Your task to perform on an android device: toggle improve location accuracy Image 0: 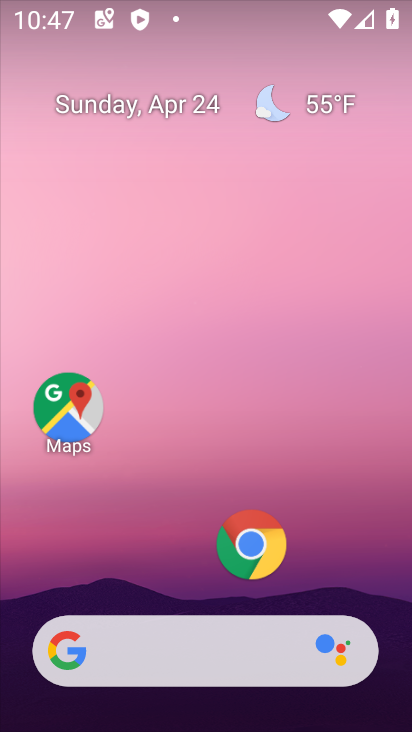
Step 0: drag from (207, 403) to (246, 92)
Your task to perform on an android device: toggle improve location accuracy Image 1: 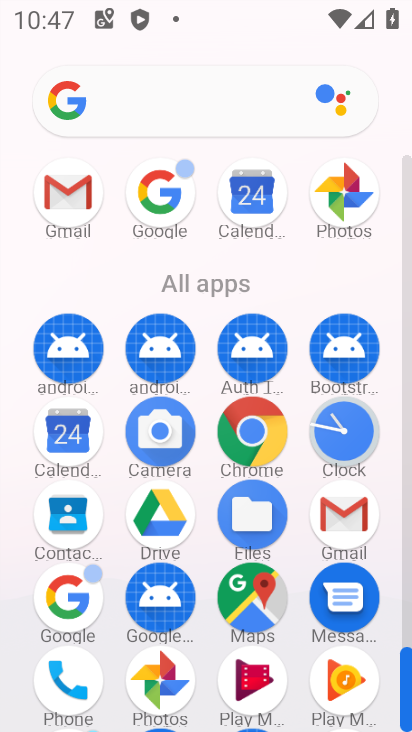
Step 1: drag from (117, 651) to (152, 303)
Your task to perform on an android device: toggle improve location accuracy Image 2: 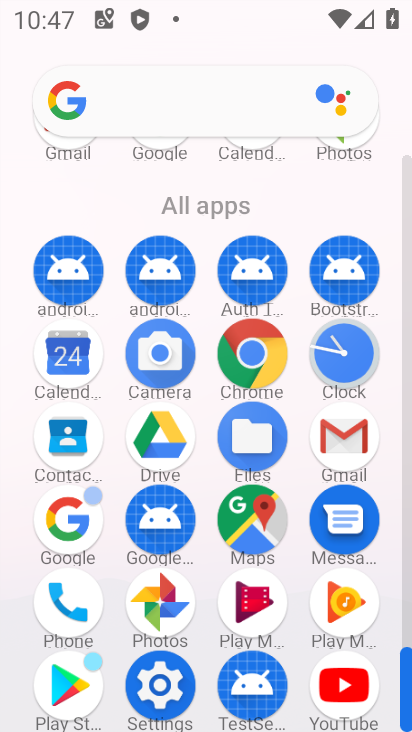
Step 2: click (157, 646)
Your task to perform on an android device: toggle improve location accuracy Image 3: 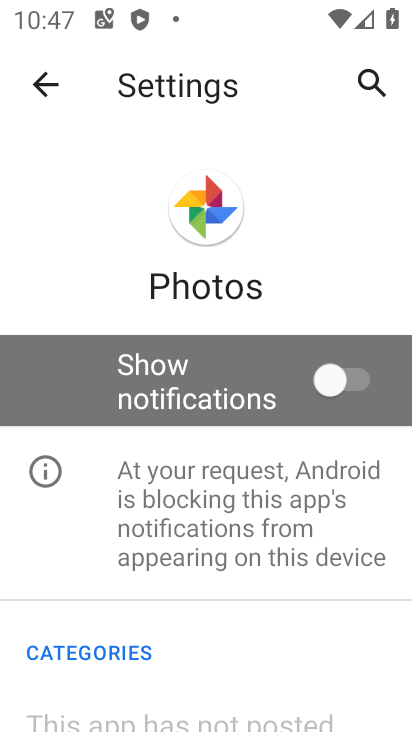
Step 3: click (50, 86)
Your task to perform on an android device: toggle improve location accuracy Image 4: 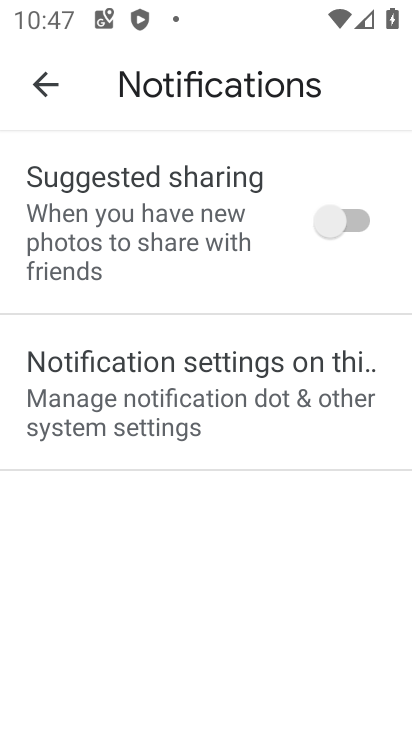
Step 4: click (36, 74)
Your task to perform on an android device: toggle improve location accuracy Image 5: 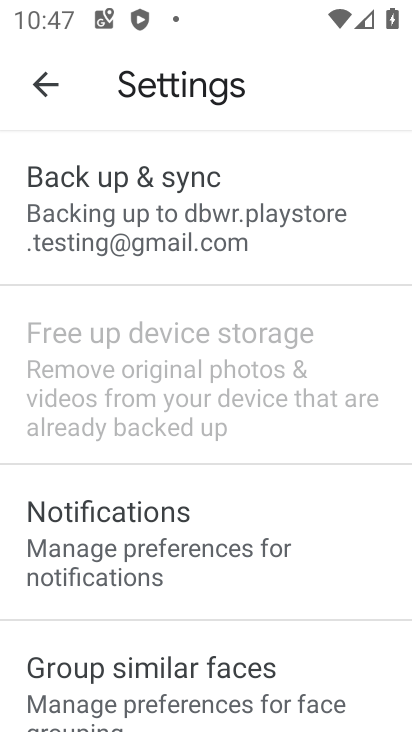
Step 5: drag from (180, 575) to (188, 159)
Your task to perform on an android device: toggle improve location accuracy Image 6: 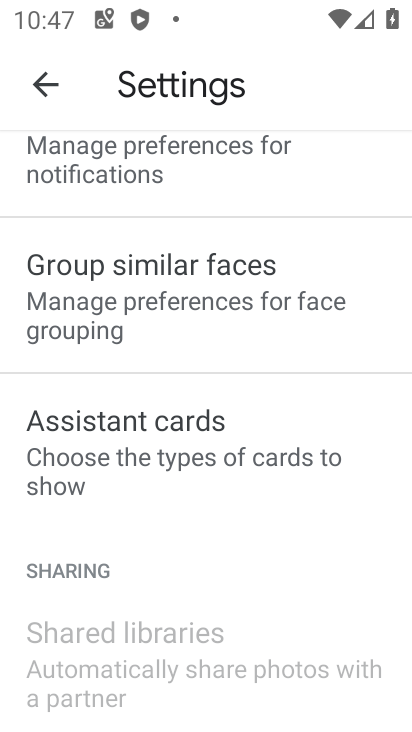
Step 6: click (44, 70)
Your task to perform on an android device: toggle improve location accuracy Image 7: 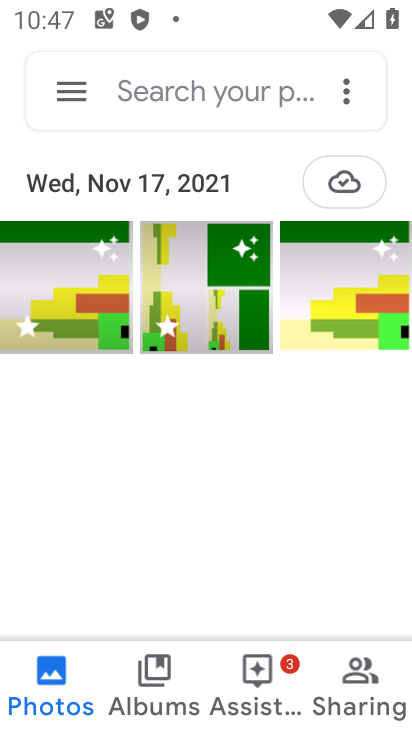
Step 7: press home button
Your task to perform on an android device: toggle improve location accuracy Image 8: 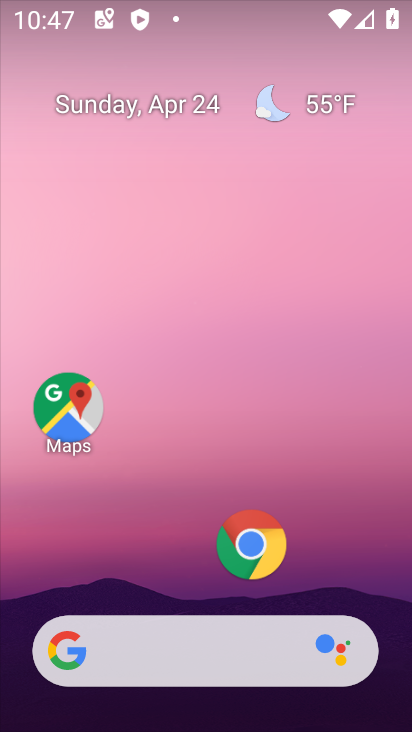
Step 8: drag from (184, 576) to (189, 68)
Your task to perform on an android device: toggle improve location accuracy Image 9: 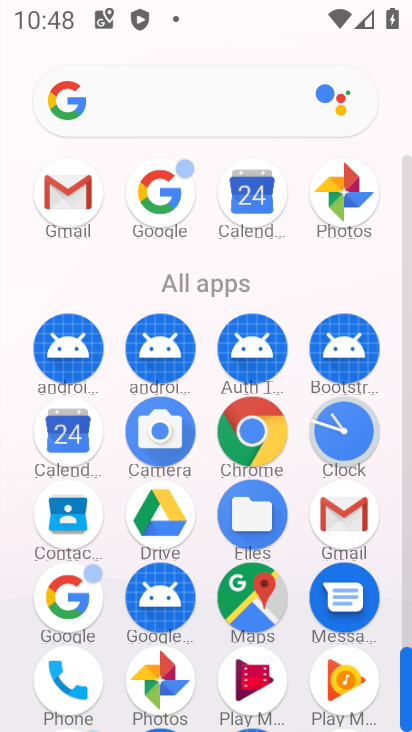
Step 9: drag from (104, 595) to (128, 218)
Your task to perform on an android device: toggle improve location accuracy Image 10: 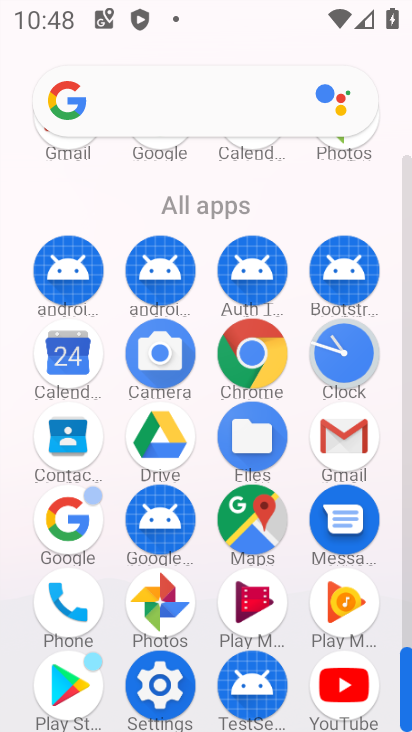
Step 10: click (158, 676)
Your task to perform on an android device: toggle improve location accuracy Image 11: 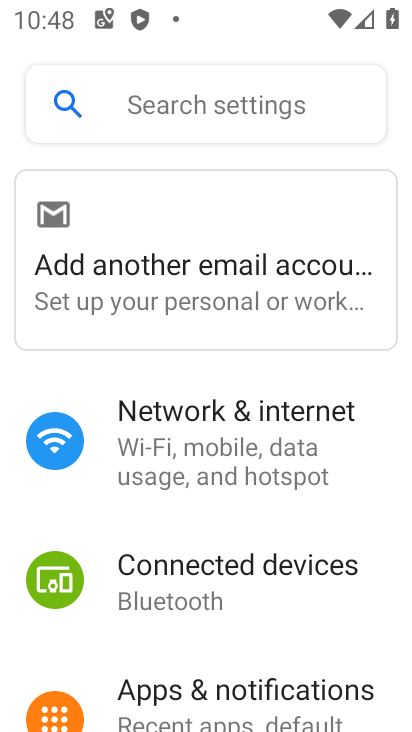
Step 11: drag from (235, 618) to (232, 266)
Your task to perform on an android device: toggle improve location accuracy Image 12: 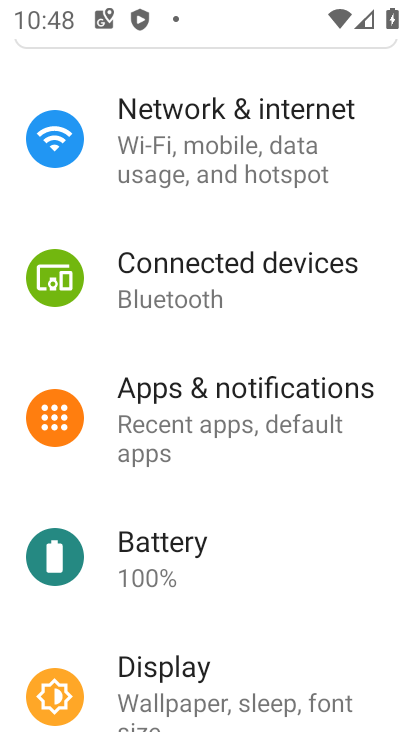
Step 12: drag from (236, 573) to (240, 251)
Your task to perform on an android device: toggle improve location accuracy Image 13: 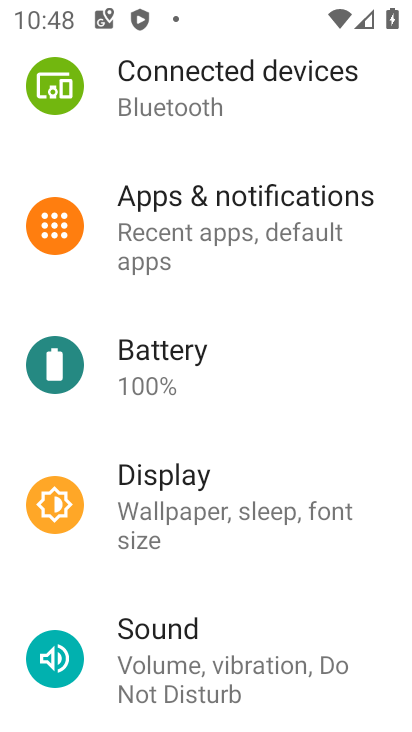
Step 13: drag from (248, 561) to (249, 319)
Your task to perform on an android device: toggle improve location accuracy Image 14: 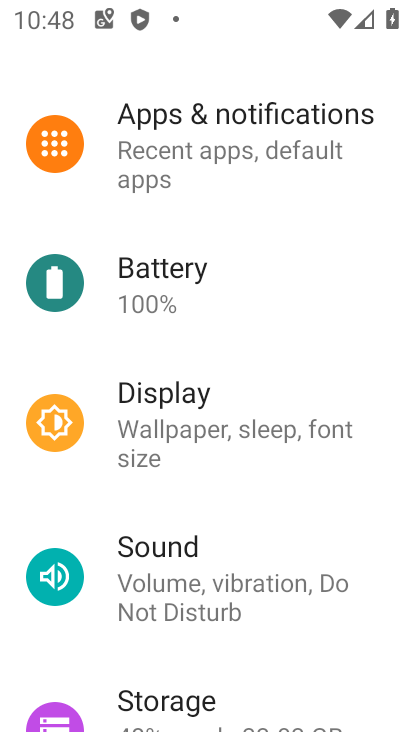
Step 14: drag from (258, 588) to (276, 269)
Your task to perform on an android device: toggle improve location accuracy Image 15: 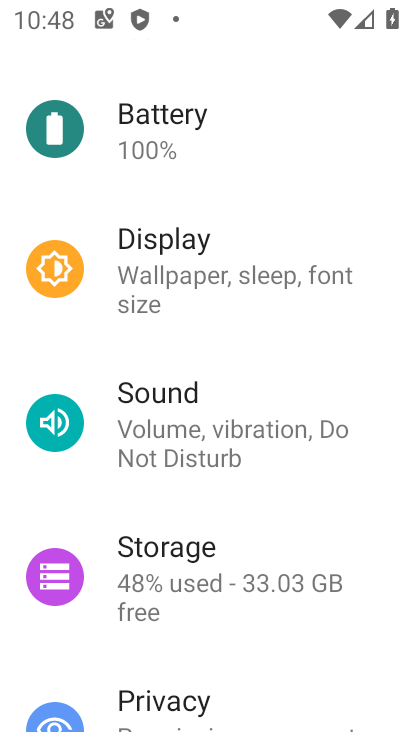
Step 15: drag from (253, 603) to (259, 403)
Your task to perform on an android device: toggle improve location accuracy Image 16: 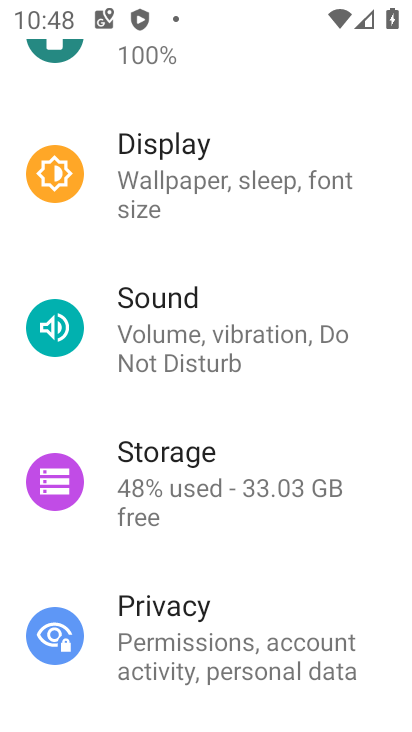
Step 16: drag from (259, 630) to (274, 345)
Your task to perform on an android device: toggle improve location accuracy Image 17: 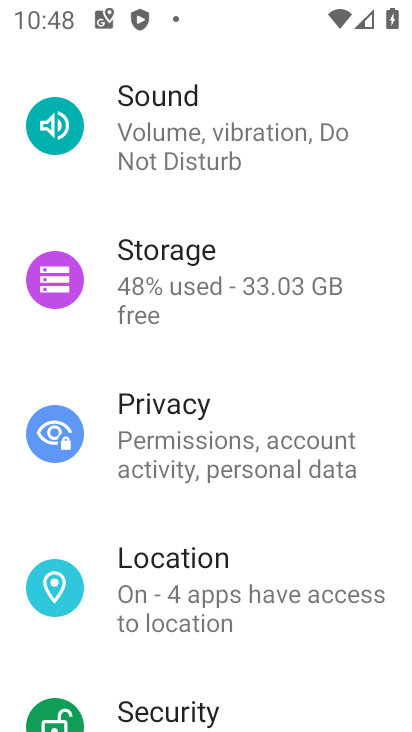
Step 17: click (193, 582)
Your task to perform on an android device: toggle improve location accuracy Image 18: 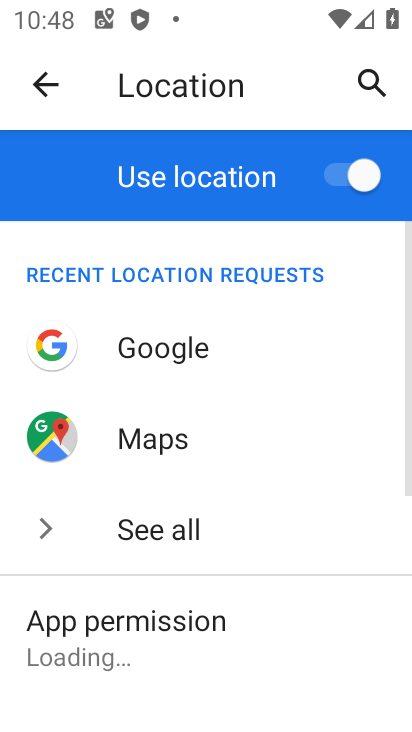
Step 18: drag from (244, 591) to (235, 331)
Your task to perform on an android device: toggle improve location accuracy Image 19: 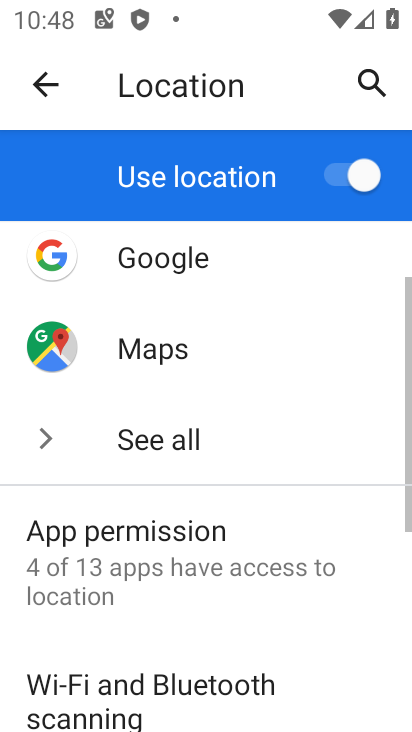
Step 19: drag from (231, 624) to (254, 380)
Your task to perform on an android device: toggle improve location accuracy Image 20: 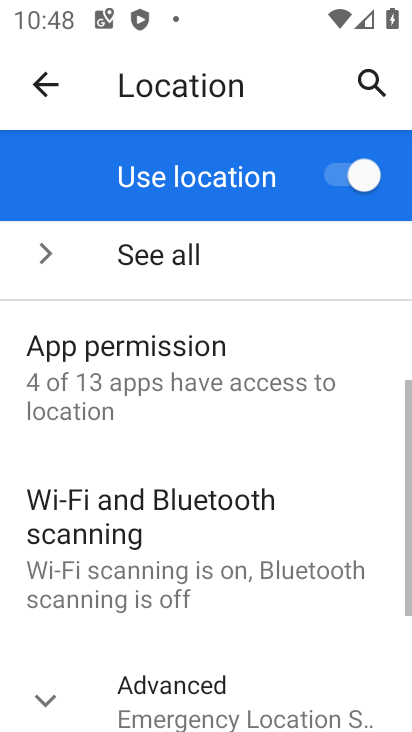
Step 20: drag from (223, 663) to (232, 438)
Your task to perform on an android device: toggle improve location accuracy Image 21: 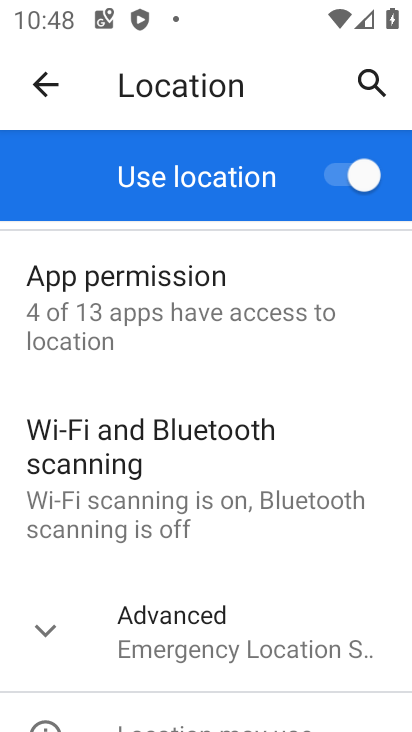
Step 21: click (170, 626)
Your task to perform on an android device: toggle improve location accuracy Image 22: 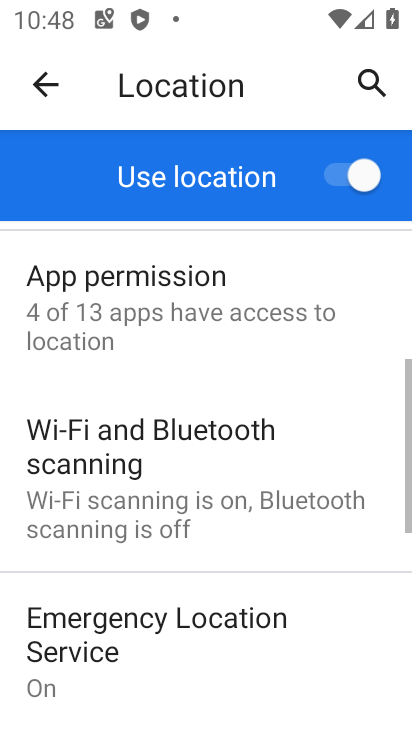
Step 22: drag from (212, 645) to (222, 298)
Your task to perform on an android device: toggle improve location accuracy Image 23: 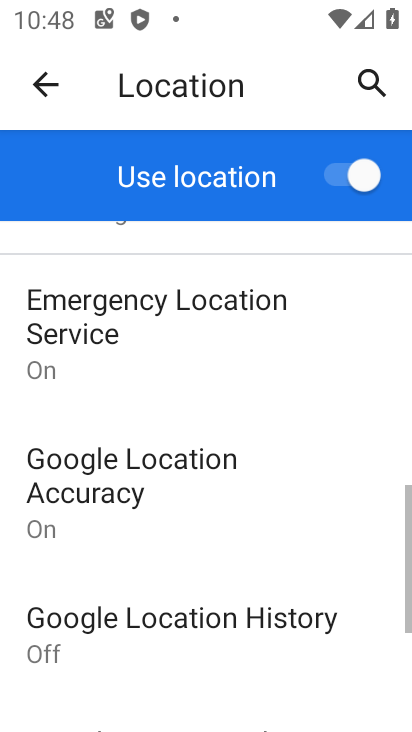
Step 23: drag from (227, 665) to (252, 479)
Your task to perform on an android device: toggle improve location accuracy Image 24: 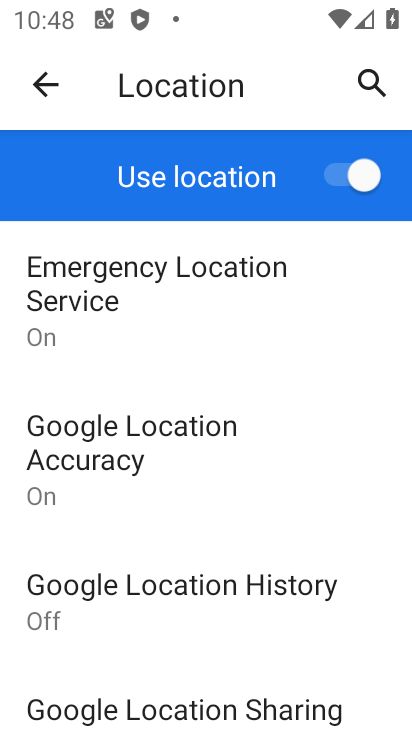
Step 24: drag from (252, 623) to (267, 432)
Your task to perform on an android device: toggle improve location accuracy Image 25: 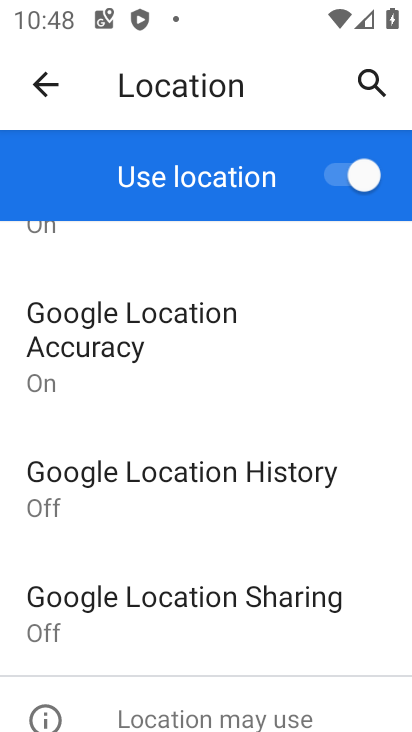
Step 25: drag from (262, 622) to (280, 531)
Your task to perform on an android device: toggle improve location accuracy Image 26: 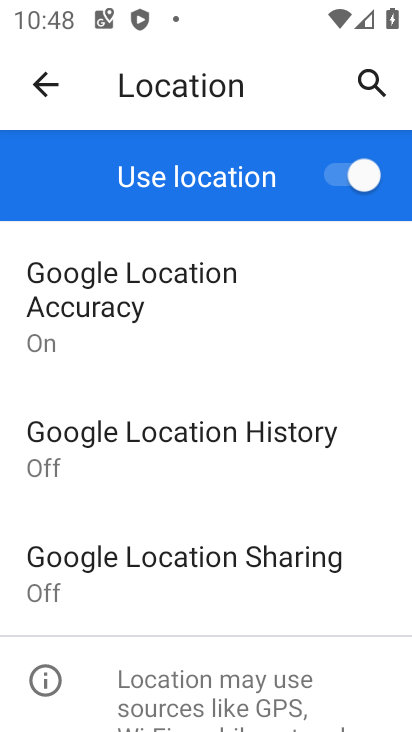
Step 26: click (155, 326)
Your task to perform on an android device: toggle improve location accuracy Image 27: 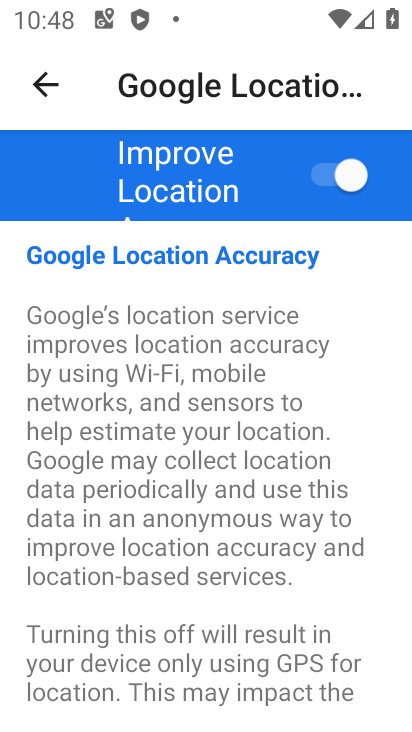
Step 27: click (316, 171)
Your task to perform on an android device: toggle improve location accuracy Image 28: 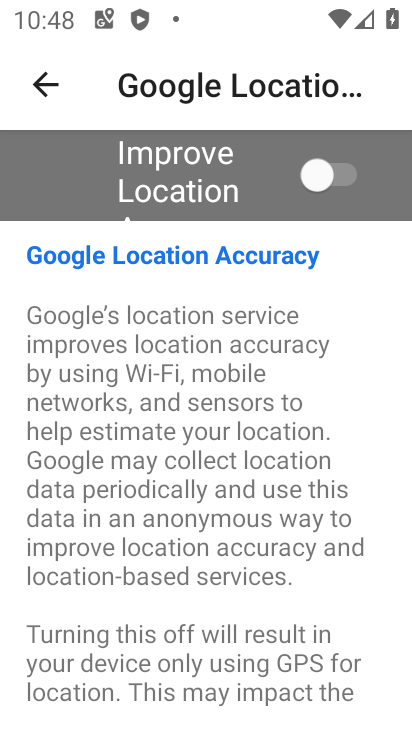
Step 28: task complete